Your task to perform on an android device: turn on showing notifications on the lock screen Image 0: 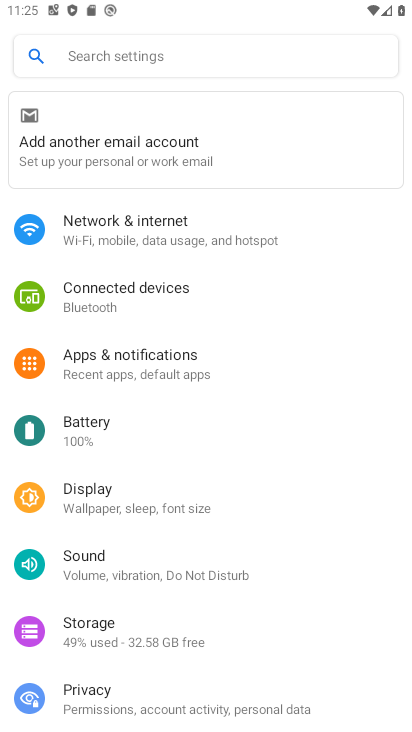
Step 0: click (151, 357)
Your task to perform on an android device: turn on showing notifications on the lock screen Image 1: 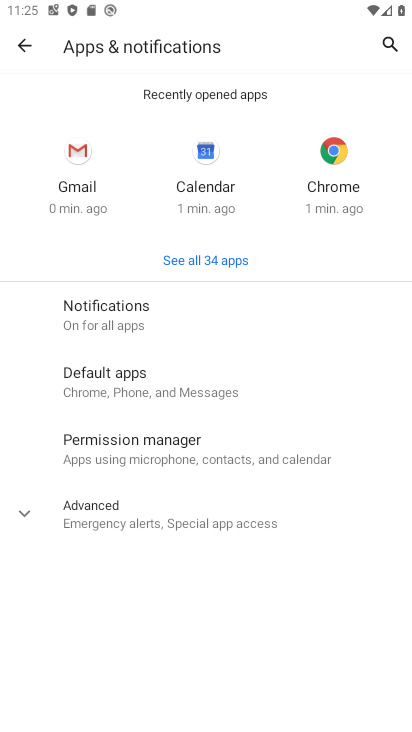
Step 1: click (120, 320)
Your task to perform on an android device: turn on showing notifications on the lock screen Image 2: 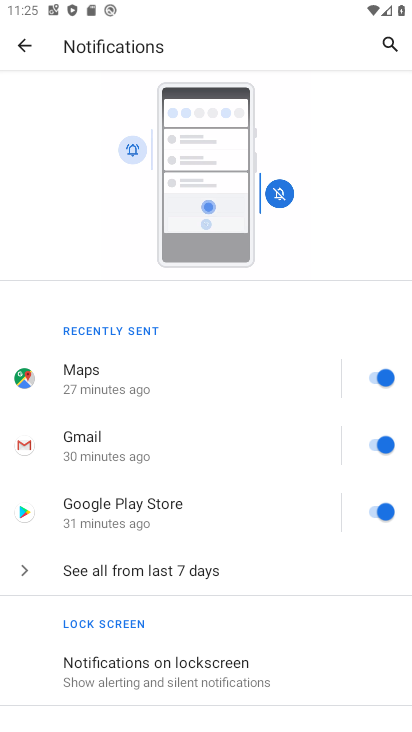
Step 2: drag from (161, 621) to (188, 522)
Your task to perform on an android device: turn on showing notifications on the lock screen Image 3: 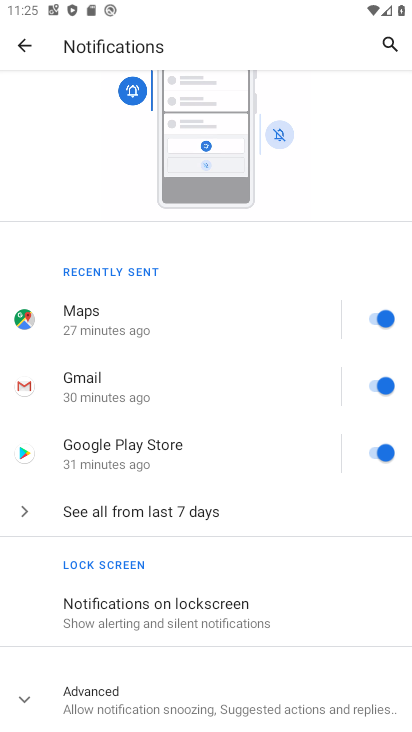
Step 3: click (185, 584)
Your task to perform on an android device: turn on showing notifications on the lock screen Image 4: 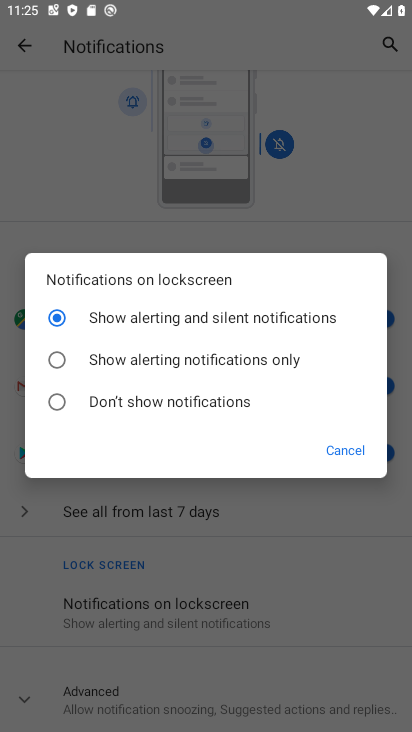
Step 4: click (64, 314)
Your task to perform on an android device: turn on showing notifications on the lock screen Image 5: 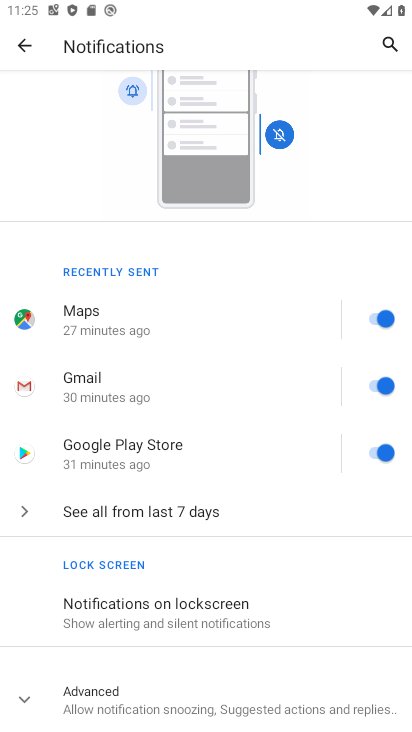
Step 5: task complete